Your task to perform on an android device: Go to calendar. Show me events next week Image 0: 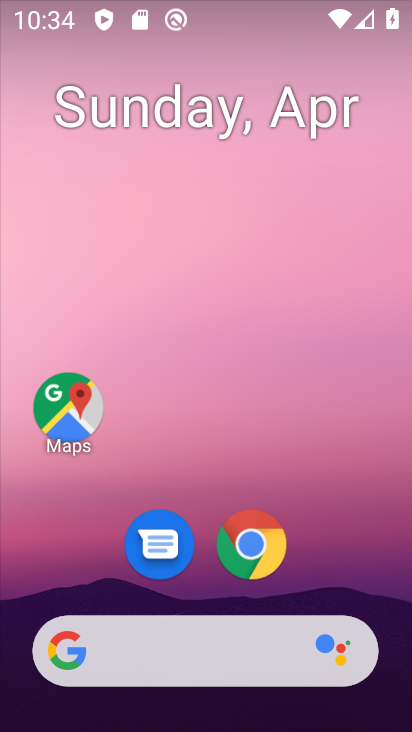
Step 0: drag from (177, 433) to (172, 214)
Your task to perform on an android device: Go to calendar. Show me events next week Image 1: 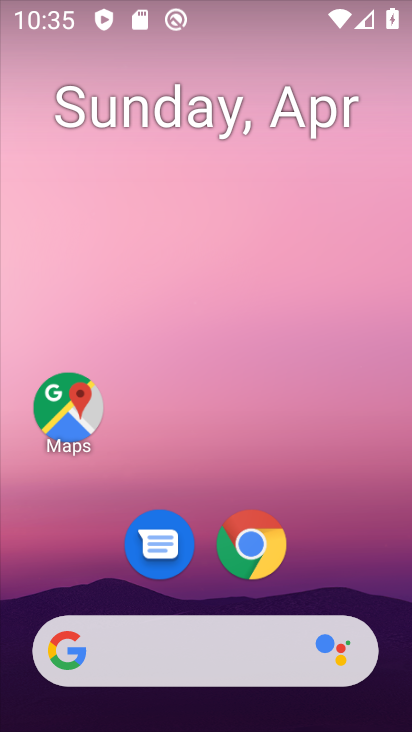
Step 1: drag from (197, 588) to (190, 139)
Your task to perform on an android device: Go to calendar. Show me events next week Image 2: 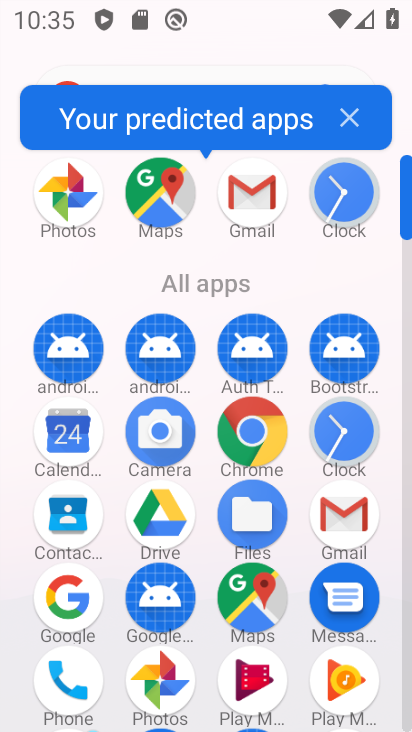
Step 2: click (71, 435)
Your task to perform on an android device: Go to calendar. Show me events next week Image 3: 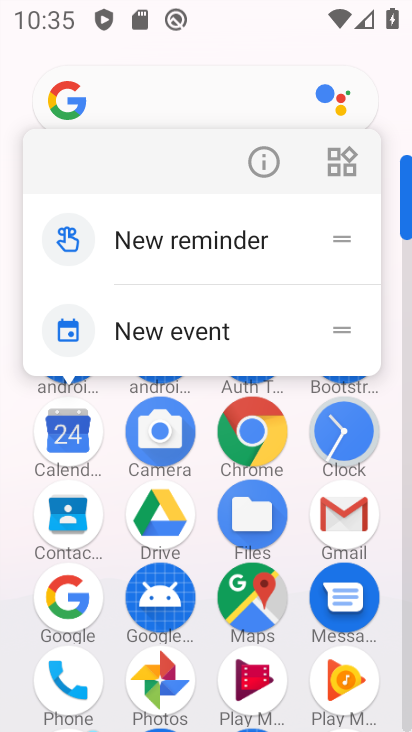
Step 3: click (72, 444)
Your task to perform on an android device: Go to calendar. Show me events next week Image 4: 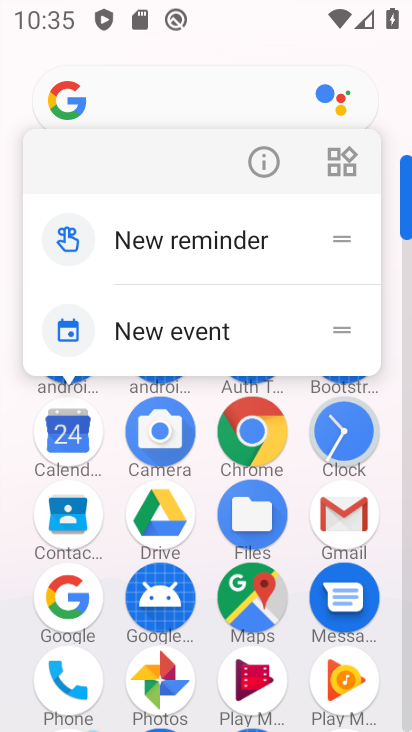
Step 4: click (72, 444)
Your task to perform on an android device: Go to calendar. Show me events next week Image 5: 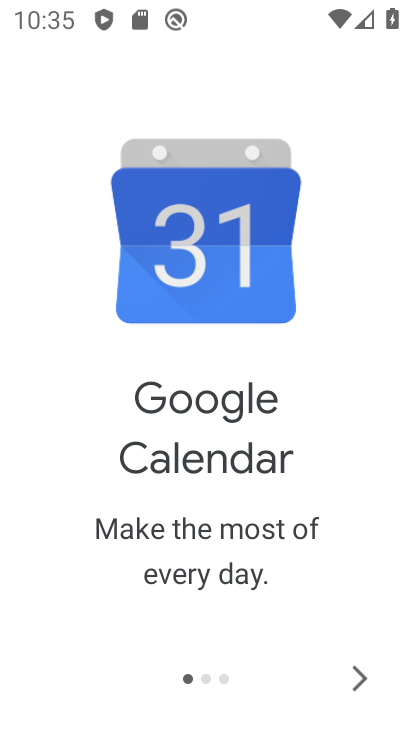
Step 5: click (359, 671)
Your task to perform on an android device: Go to calendar. Show me events next week Image 6: 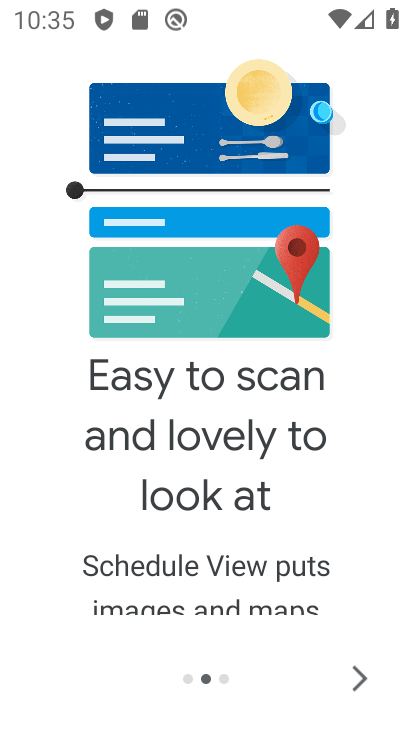
Step 6: click (355, 667)
Your task to perform on an android device: Go to calendar. Show me events next week Image 7: 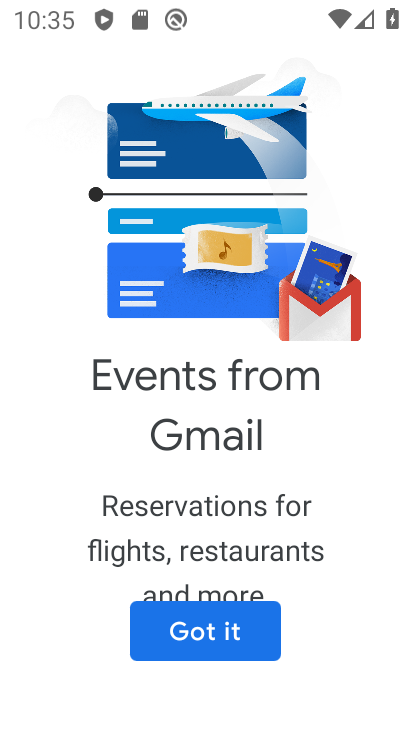
Step 7: click (260, 617)
Your task to perform on an android device: Go to calendar. Show me events next week Image 8: 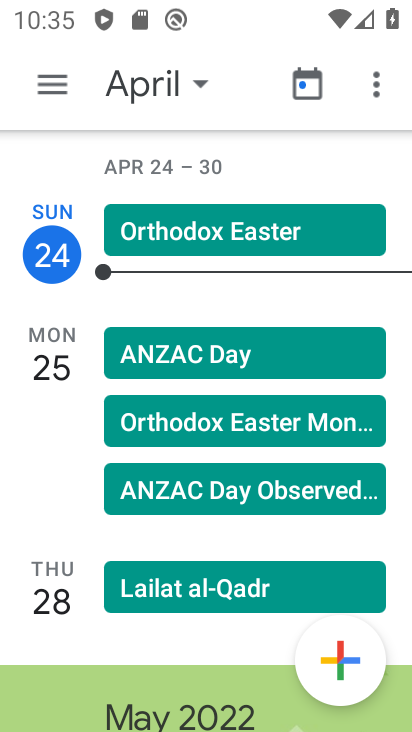
Step 8: click (185, 85)
Your task to perform on an android device: Go to calendar. Show me events next week Image 9: 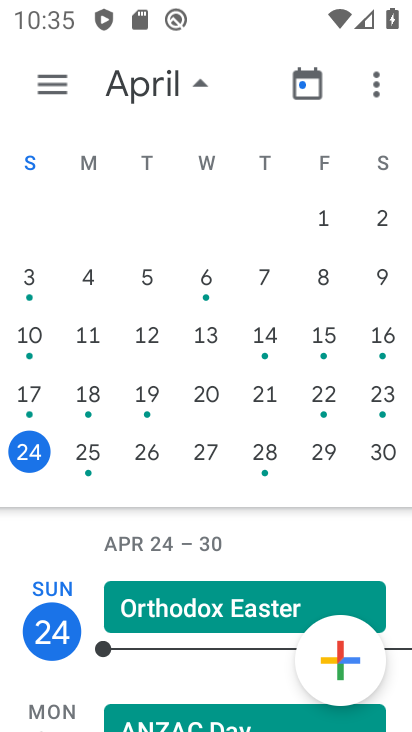
Step 9: click (368, 453)
Your task to perform on an android device: Go to calendar. Show me events next week Image 10: 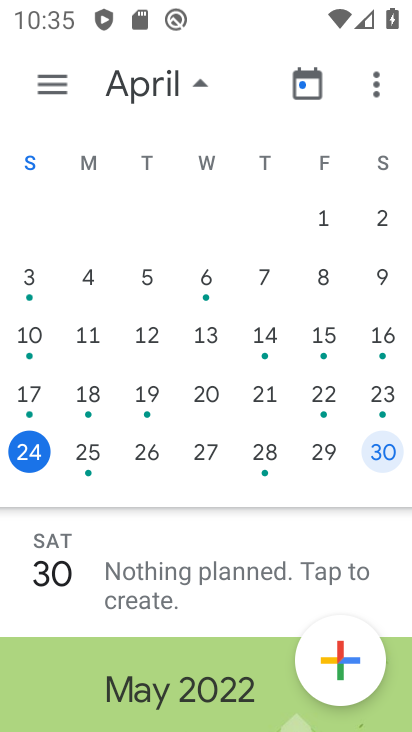
Step 10: drag from (334, 360) to (23, 295)
Your task to perform on an android device: Go to calendar. Show me events next week Image 11: 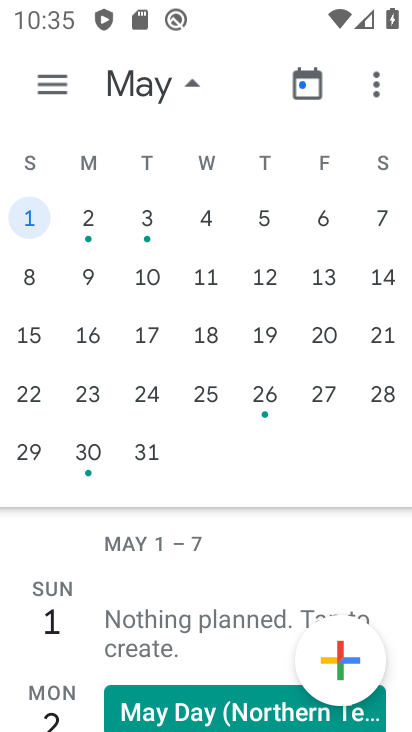
Step 11: click (74, 223)
Your task to perform on an android device: Go to calendar. Show me events next week Image 12: 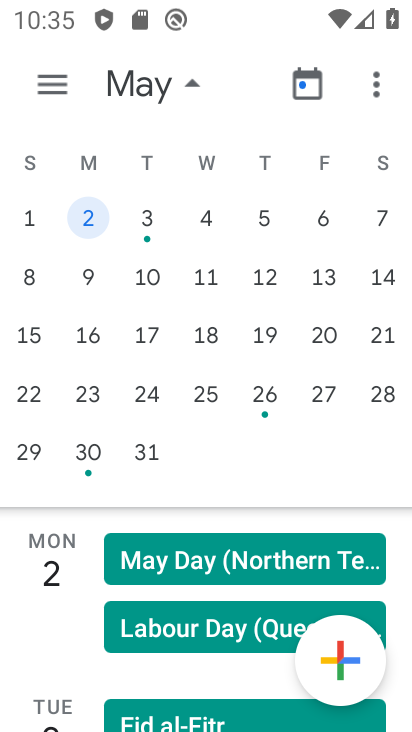
Step 12: drag from (219, 481) to (270, 277)
Your task to perform on an android device: Go to calendar. Show me events next week Image 13: 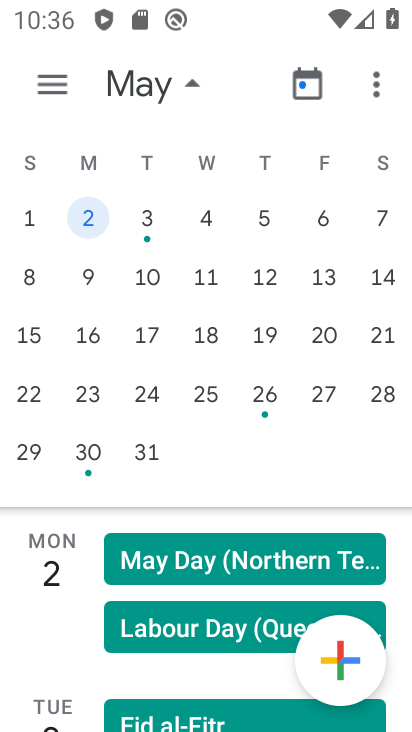
Step 13: click (218, 566)
Your task to perform on an android device: Go to calendar. Show me events next week Image 14: 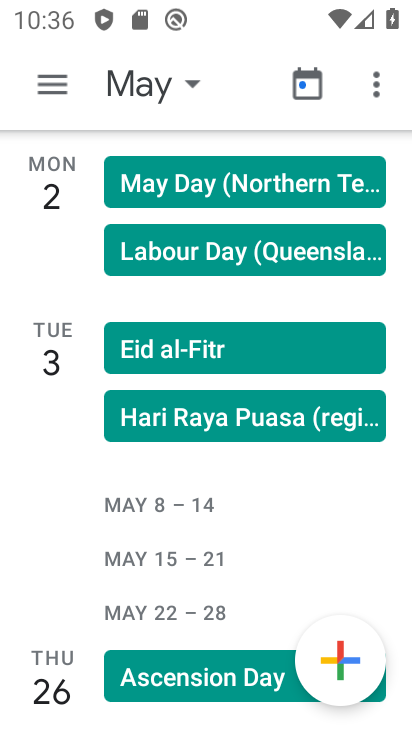
Step 14: task complete